Your task to perform on an android device: clear all cookies in the chrome app Image 0: 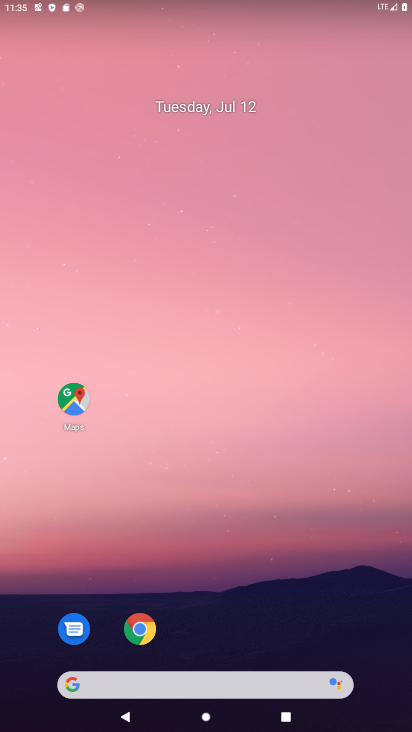
Step 0: press home button
Your task to perform on an android device: clear all cookies in the chrome app Image 1: 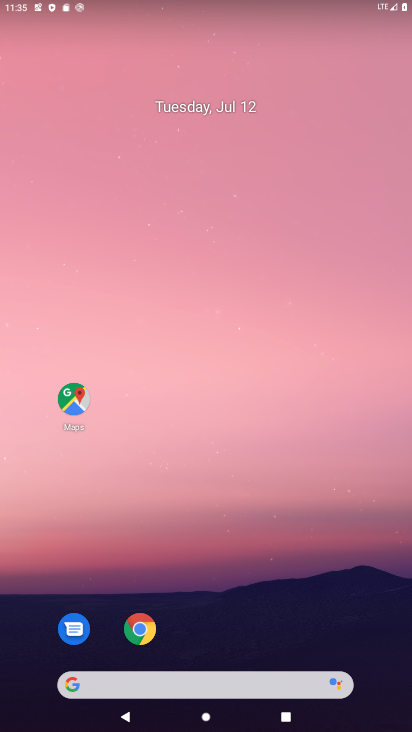
Step 1: click (217, 172)
Your task to perform on an android device: clear all cookies in the chrome app Image 2: 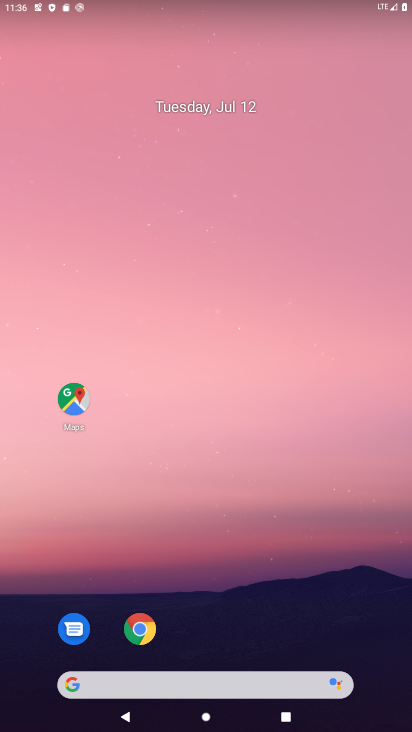
Step 2: click (129, 617)
Your task to perform on an android device: clear all cookies in the chrome app Image 3: 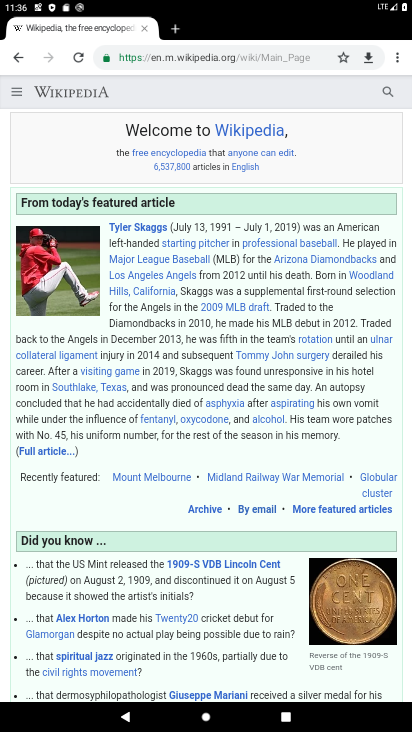
Step 3: click (393, 54)
Your task to perform on an android device: clear all cookies in the chrome app Image 4: 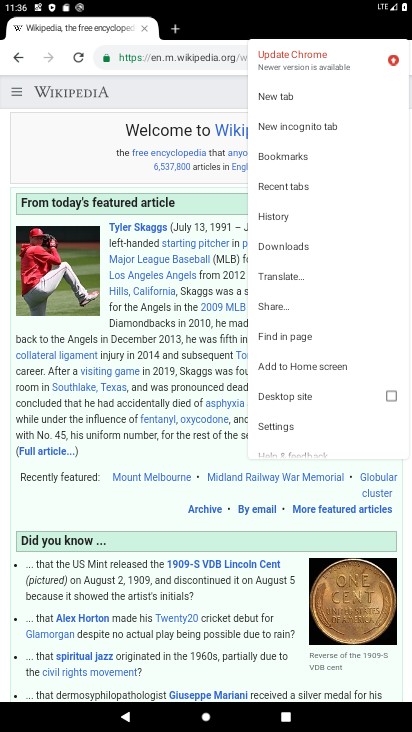
Step 4: click (293, 214)
Your task to perform on an android device: clear all cookies in the chrome app Image 5: 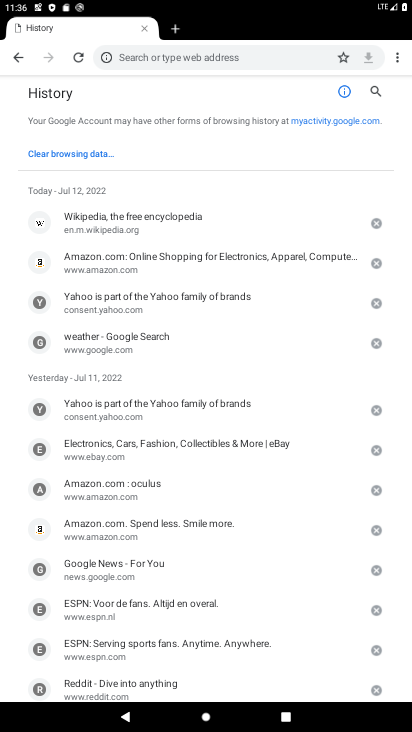
Step 5: click (90, 150)
Your task to perform on an android device: clear all cookies in the chrome app Image 6: 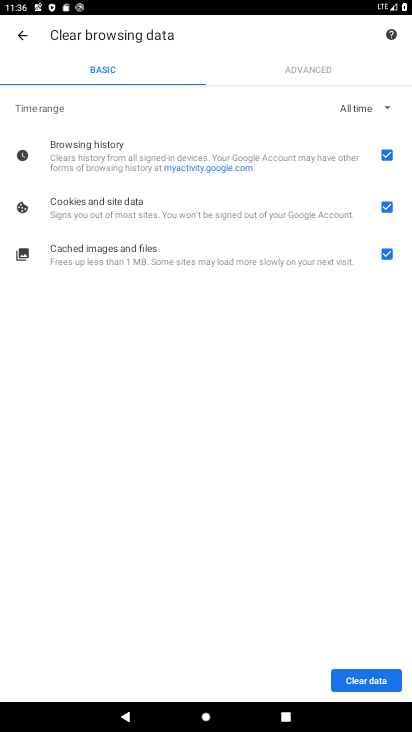
Step 6: click (386, 150)
Your task to perform on an android device: clear all cookies in the chrome app Image 7: 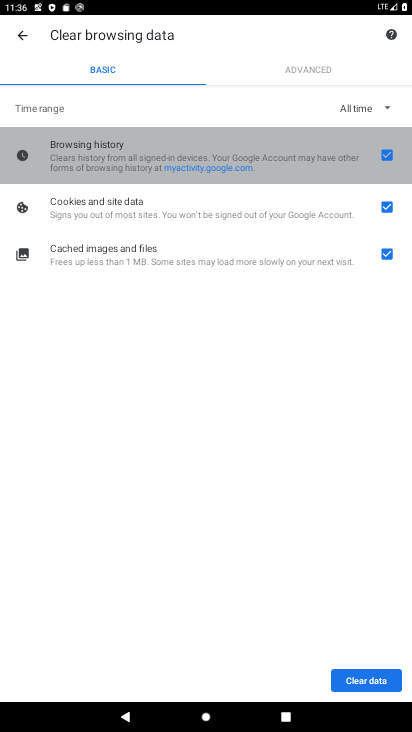
Step 7: click (387, 248)
Your task to perform on an android device: clear all cookies in the chrome app Image 8: 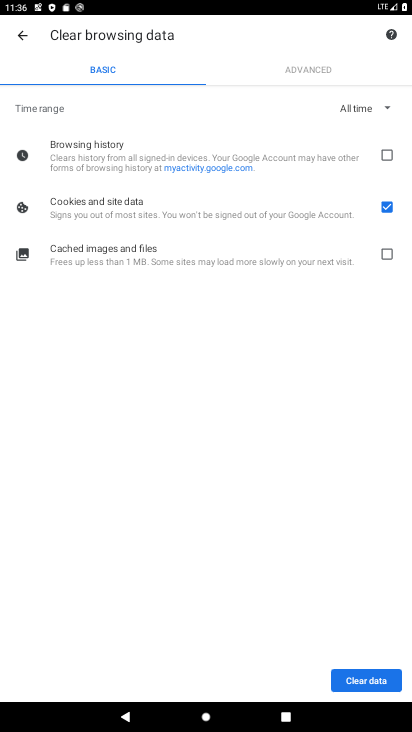
Step 8: click (367, 683)
Your task to perform on an android device: clear all cookies in the chrome app Image 9: 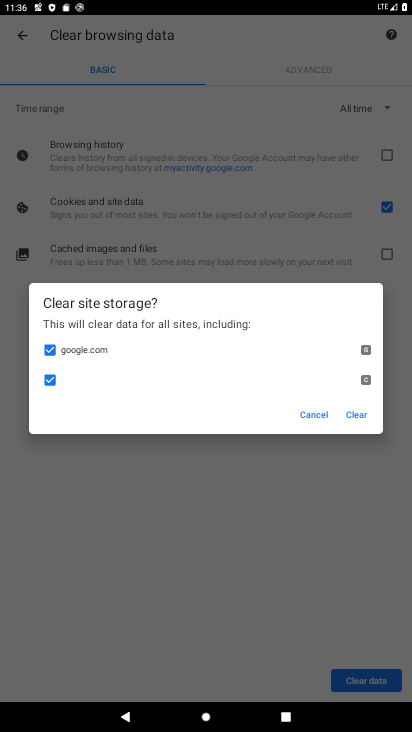
Step 9: click (356, 405)
Your task to perform on an android device: clear all cookies in the chrome app Image 10: 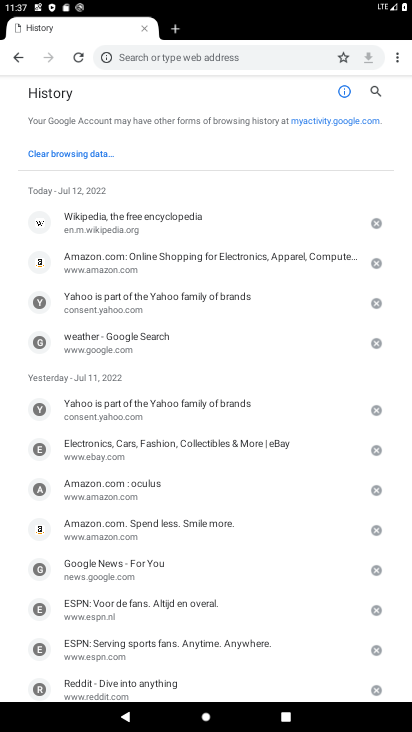
Step 10: task complete